Your task to perform on an android device: open wifi settings Image 0: 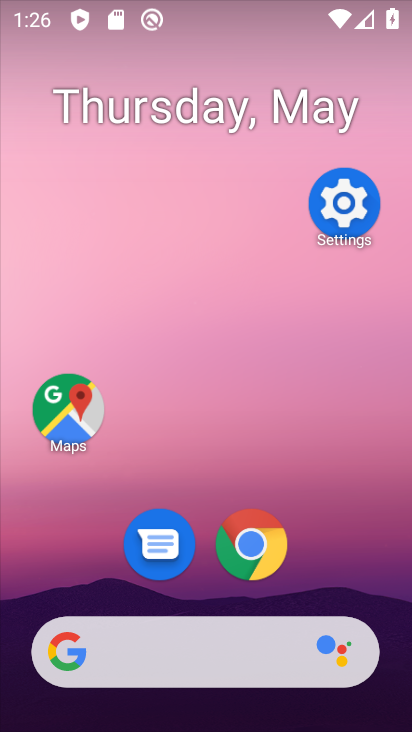
Step 0: click (357, 216)
Your task to perform on an android device: open wifi settings Image 1: 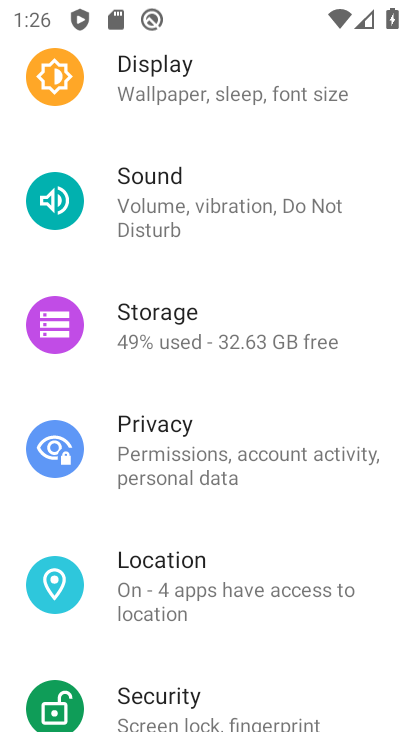
Step 1: drag from (288, 172) to (301, 645)
Your task to perform on an android device: open wifi settings Image 2: 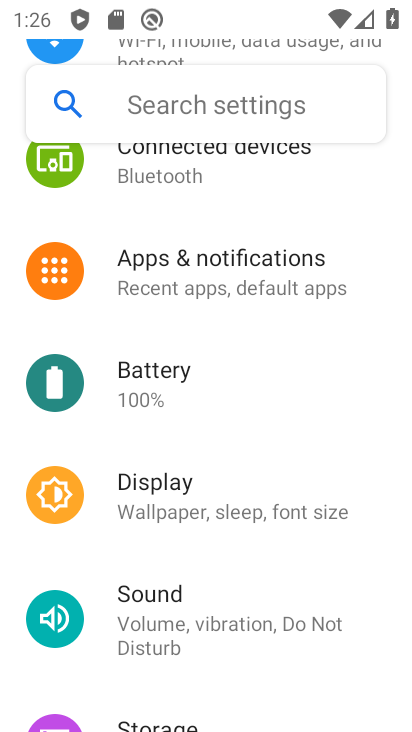
Step 2: drag from (240, 293) to (233, 731)
Your task to perform on an android device: open wifi settings Image 3: 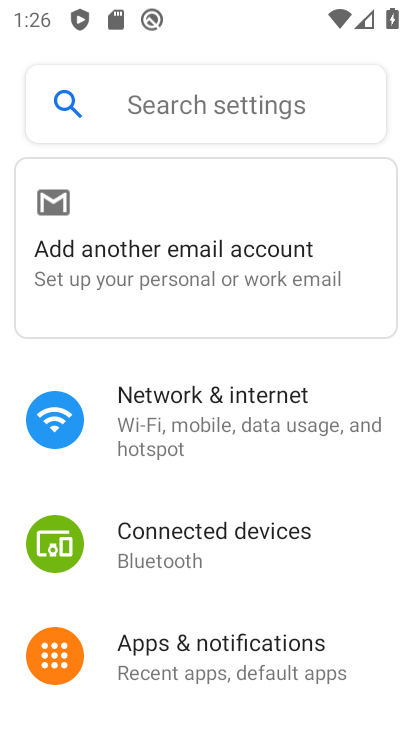
Step 3: click (212, 389)
Your task to perform on an android device: open wifi settings Image 4: 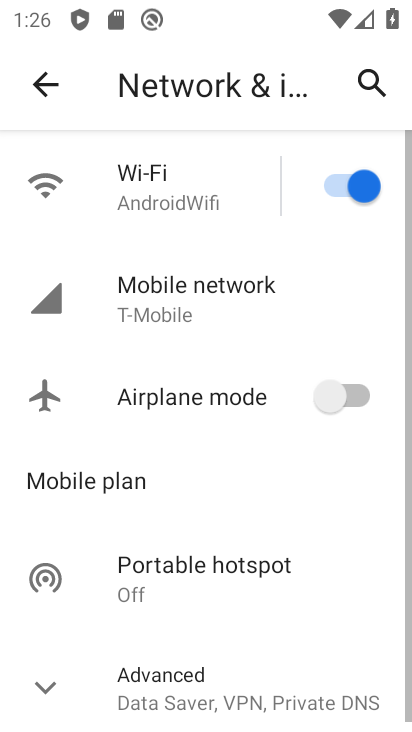
Step 4: click (184, 171)
Your task to perform on an android device: open wifi settings Image 5: 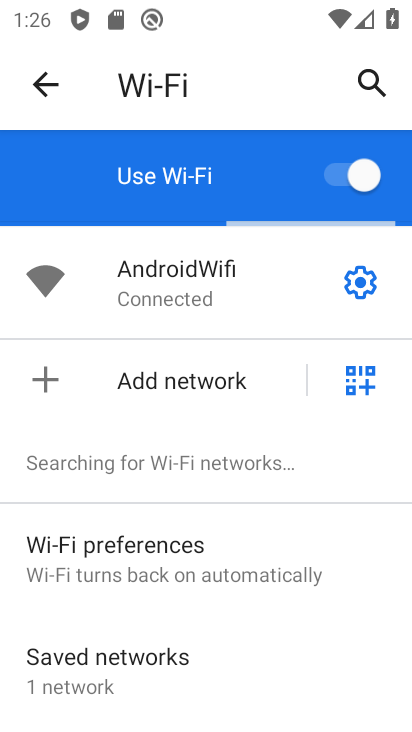
Step 5: task complete